Your task to perform on an android device: turn on priority inbox in the gmail app Image 0: 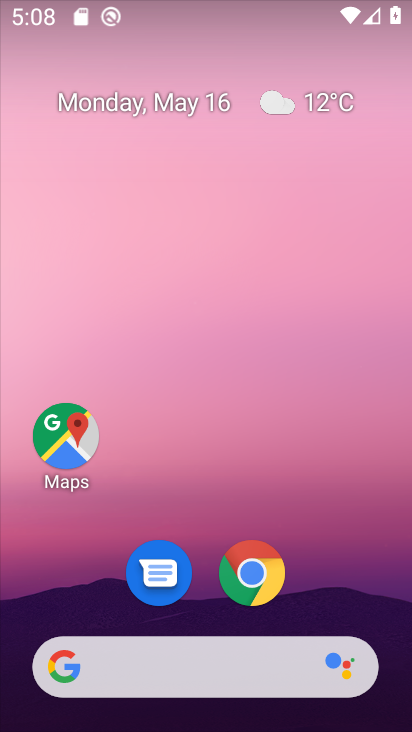
Step 0: drag from (198, 612) to (277, 187)
Your task to perform on an android device: turn on priority inbox in the gmail app Image 1: 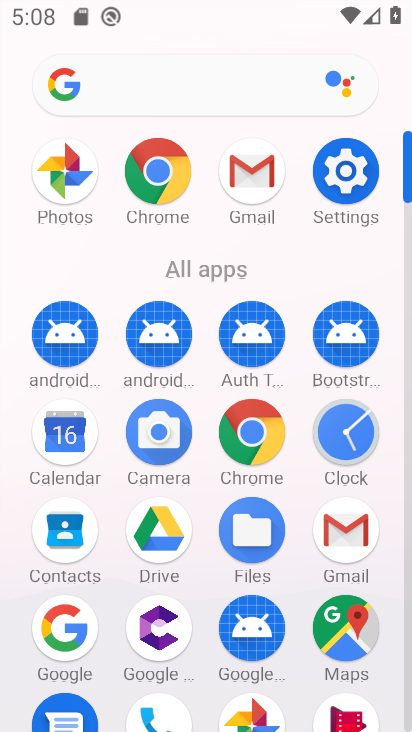
Step 1: click (249, 172)
Your task to perform on an android device: turn on priority inbox in the gmail app Image 2: 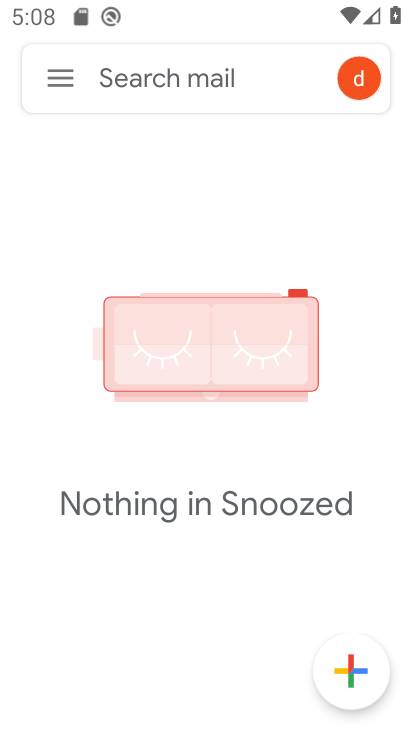
Step 2: click (66, 85)
Your task to perform on an android device: turn on priority inbox in the gmail app Image 3: 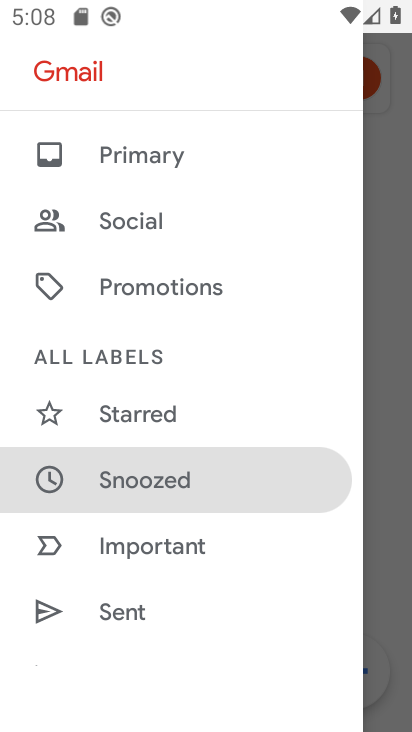
Step 3: drag from (208, 215) to (205, 644)
Your task to perform on an android device: turn on priority inbox in the gmail app Image 4: 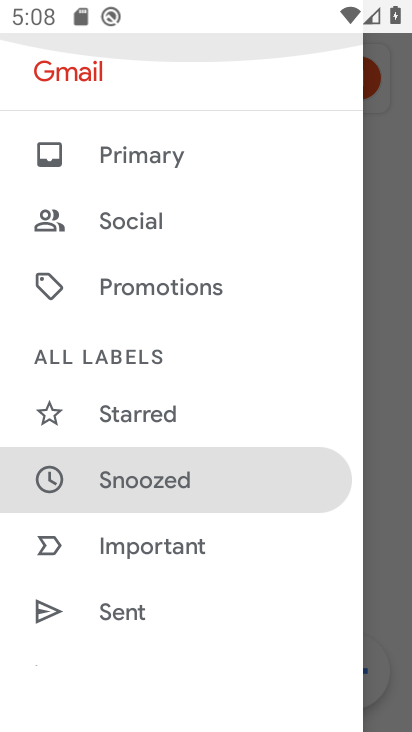
Step 4: drag from (161, 525) to (267, 101)
Your task to perform on an android device: turn on priority inbox in the gmail app Image 5: 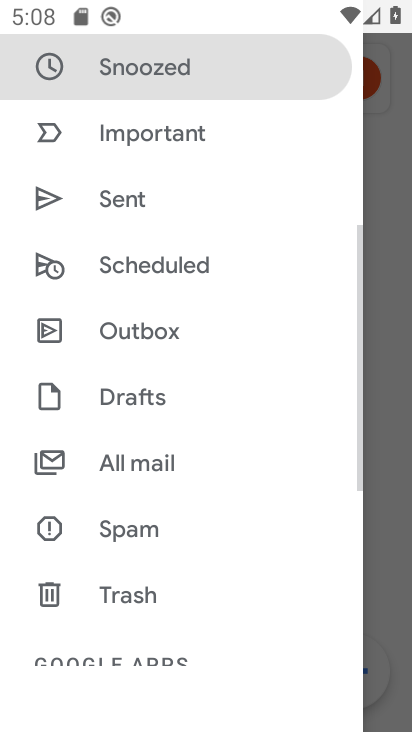
Step 5: drag from (178, 572) to (258, 82)
Your task to perform on an android device: turn on priority inbox in the gmail app Image 6: 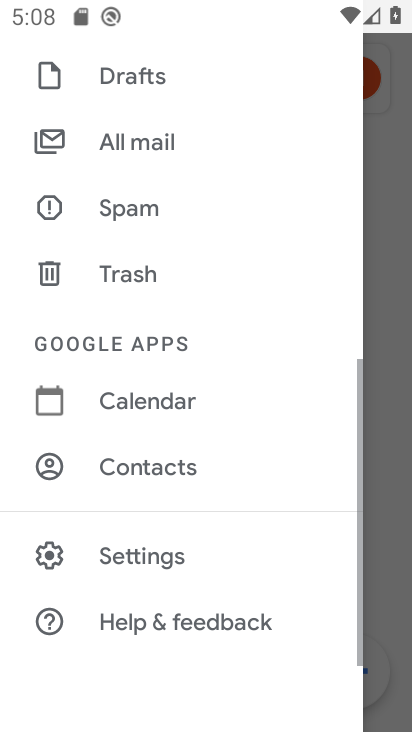
Step 6: click (129, 549)
Your task to perform on an android device: turn on priority inbox in the gmail app Image 7: 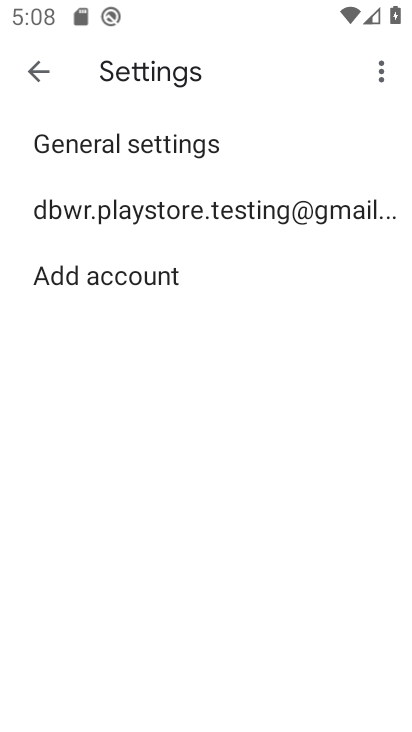
Step 7: click (201, 208)
Your task to perform on an android device: turn on priority inbox in the gmail app Image 8: 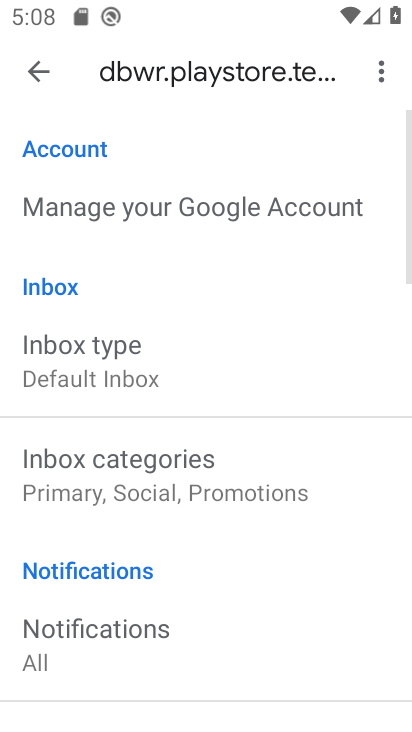
Step 8: click (118, 372)
Your task to perform on an android device: turn on priority inbox in the gmail app Image 9: 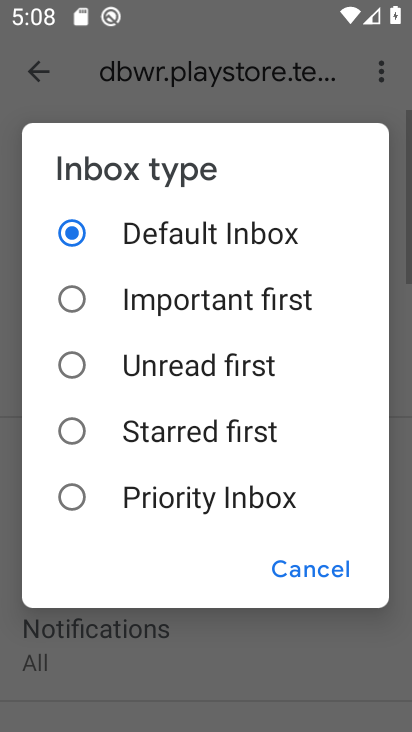
Step 9: click (63, 502)
Your task to perform on an android device: turn on priority inbox in the gmail app Image 10: 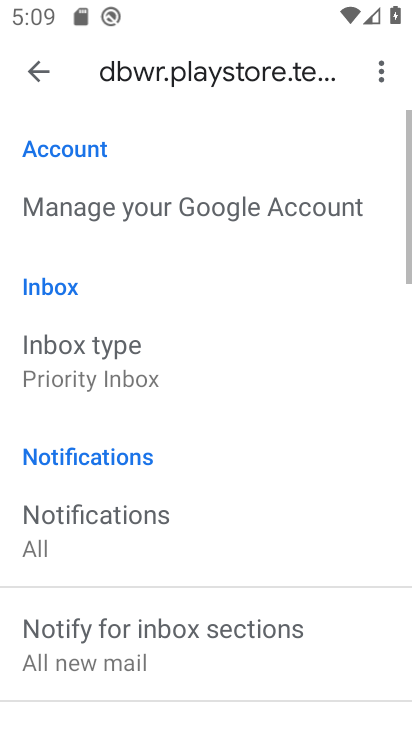
Step 10: task complete